Your task to perform on an android device: Go to network settings Image 0: 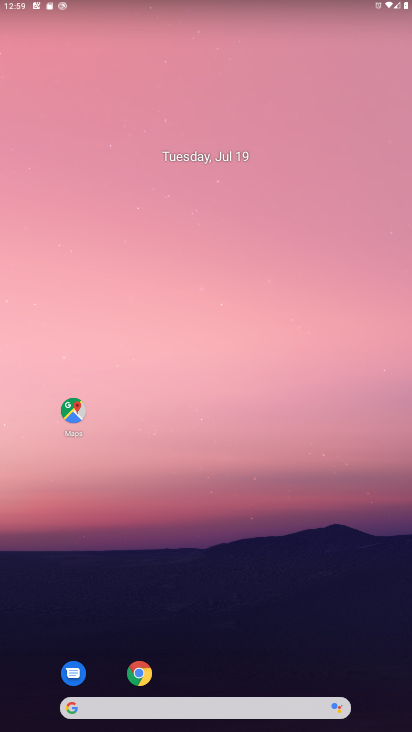
Step 0: drag from (199, 672) to (201, 222)
Your task to perform on an android device: Go to network settings Image 1: 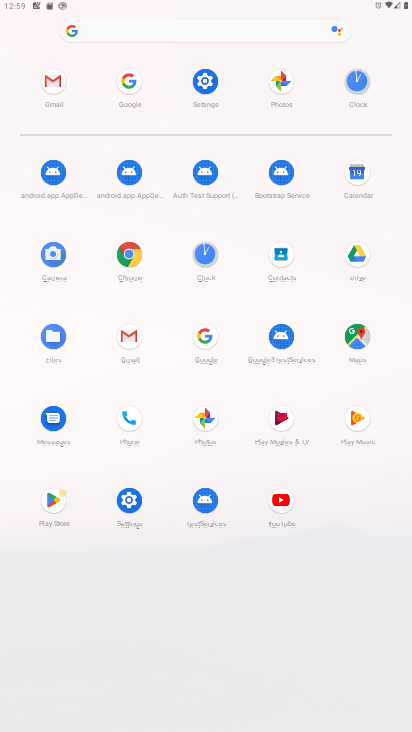
Step 1: click (211, 92)
Your task to perform on an android device: Go to network settings Image 2: 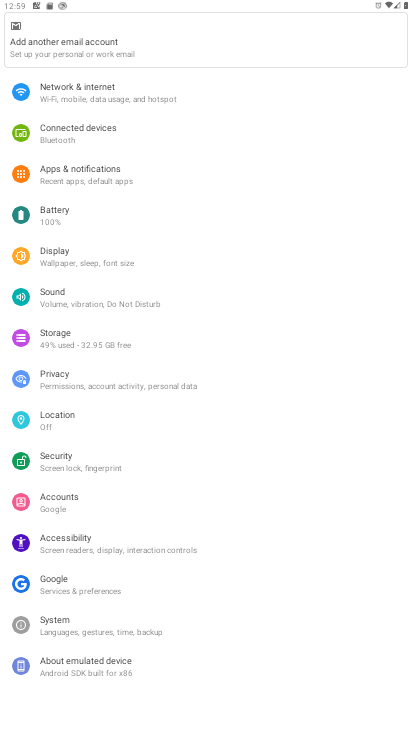
Step 2: click (119, 91)
Your task to perform on an android device: Go to network settings Image 3: 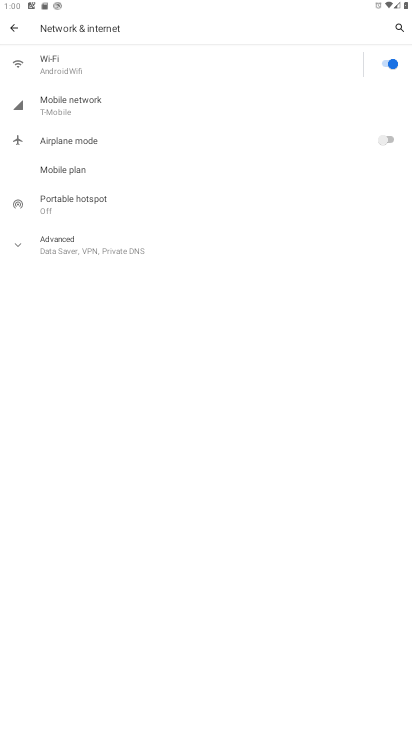
Step 3: task complete